Your task to perform on an android device: toggle translation in the chrome app Image 0: 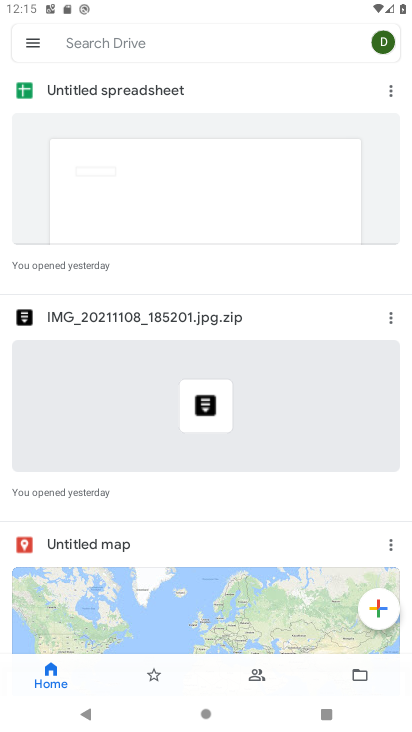
Step 0: press home button
Your task to perform on an android device: toggle translation in the chrome app Image 1: 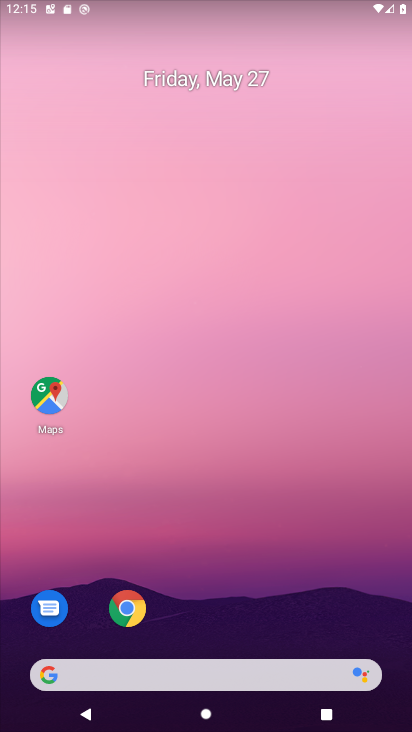
Step 1: click (121, 608)
Your task to perform on an android device: toggle translation in the chrome app Image 2: 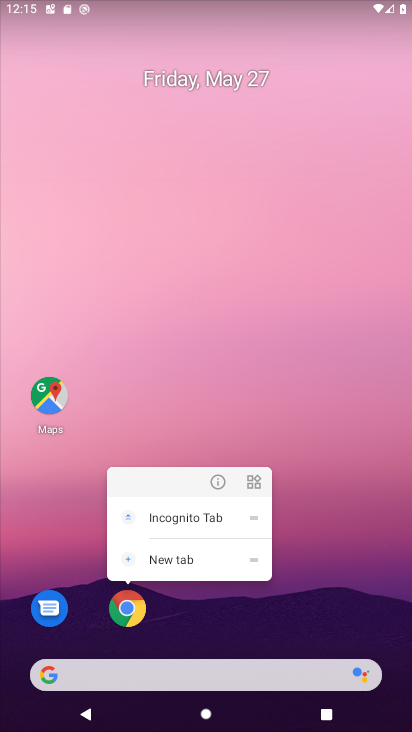
Step 2: click (124, 605)
Your task to perform on an android device: toggle translation in the chrome app Image 3: 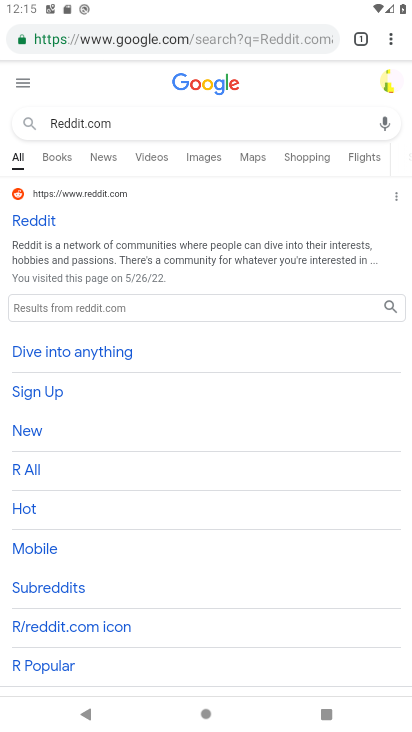
Step 3: click (389, 34)
Your task to perform on an android device: toggle translation in the chrome app Image 4: 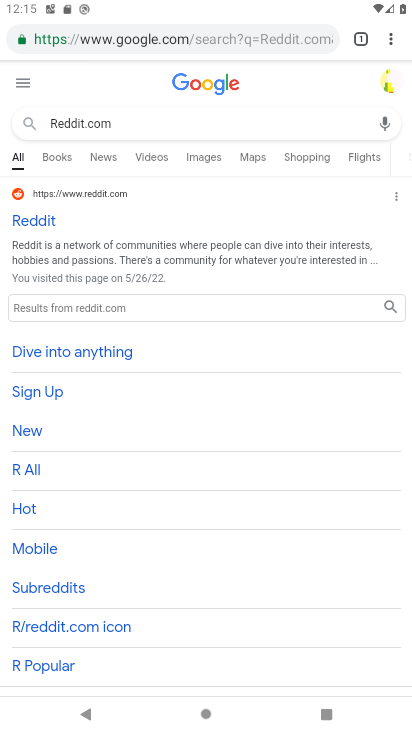
Step 4: click (392, 40)
Your task to perform on an android device: toggle translation in the chrome app Image 5: 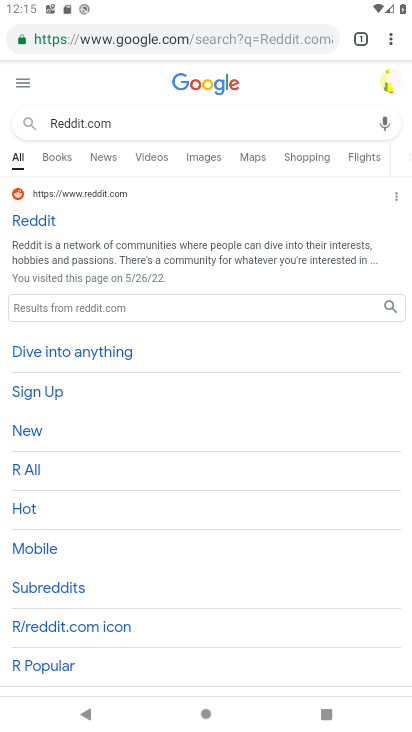
Step 5: click (391, 34)
Your task to perform on an android device: toggle translation in the chrome app Image 6: 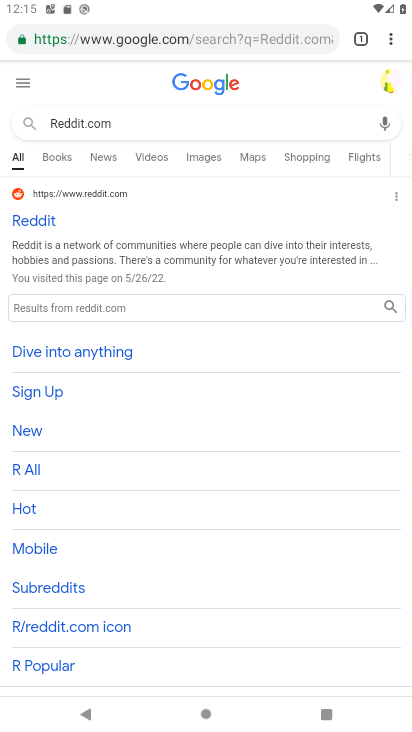
Step 6: click (388, 41)
Your task to perform on an android device: toggle translation in the chrome app Image 7: 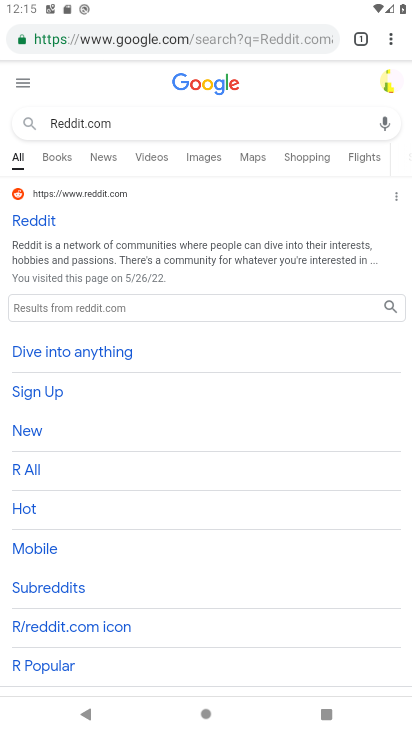
Step 7: click (388, 40)
Your task to perform on an android device: toggle translation in the chrome app Image 8: 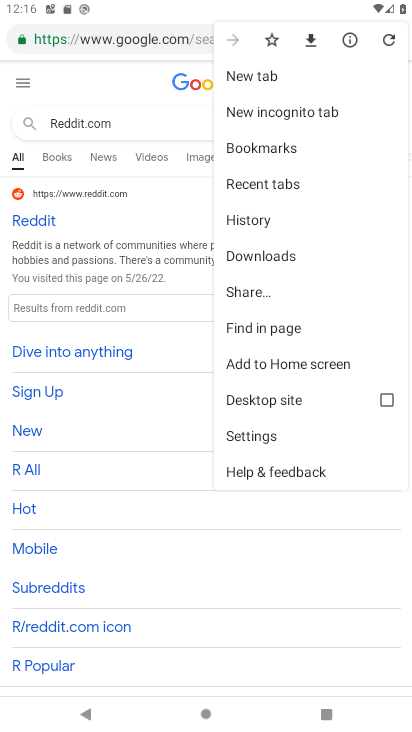
Step 8: click (245, 439)
Your task to perform on an android device: toggle translation in the chrome app Image 9: 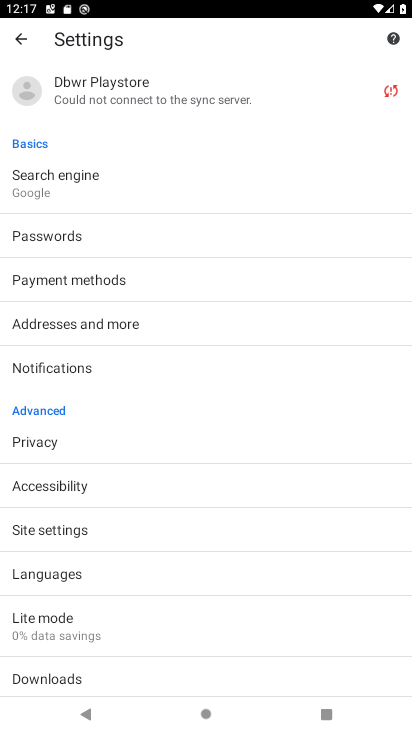
Step 9: click (87, 573)
Your task to perform on an android device: toggle translation in the chrome app Image 10: 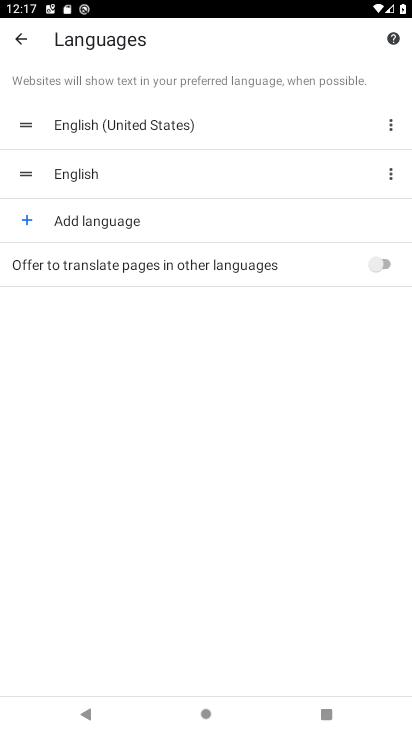
Step 10: click (382, 261)
Your task to perform on an android device: toggle translation in the chrome app Image 11: 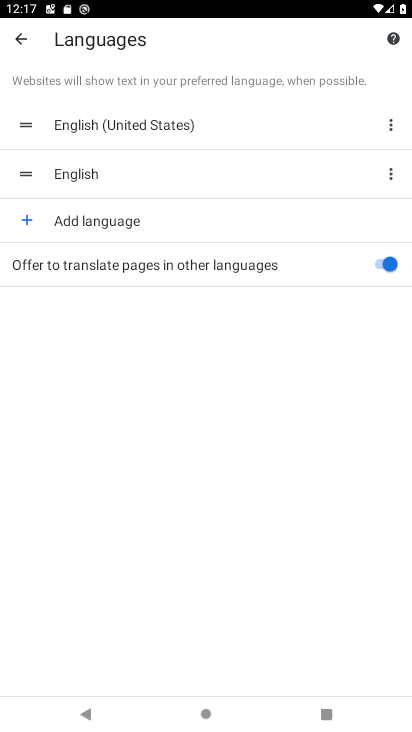
Step 11: task complete